Your task to perform on an android device: empty trash in google photos Image 0: 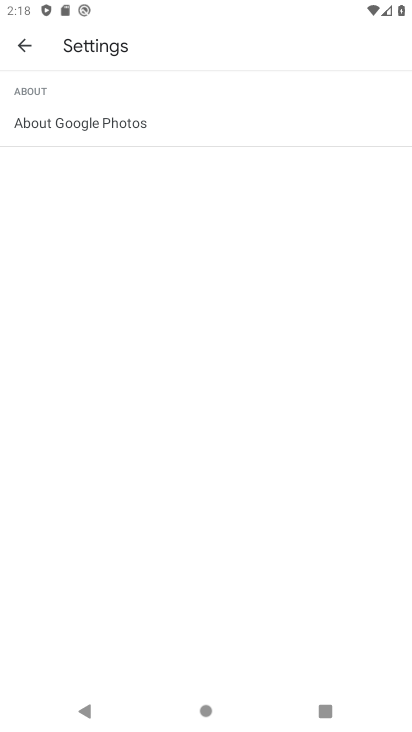
Step 0: press home button
Your task to perform on an android device: empty trash in google photos Image 1: 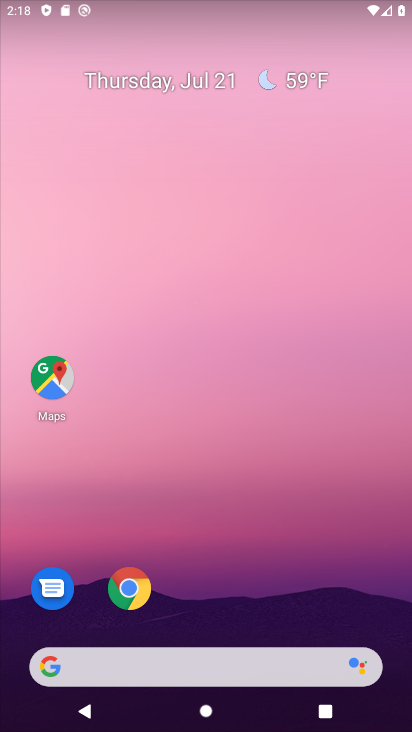
Step 1: drag from (393, 646) to (369, 81)
Your task to perform on an android device: empty trash in google photos Image 2: 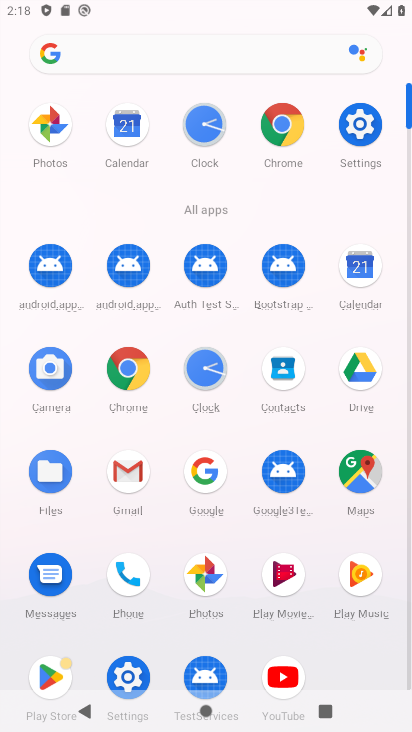
Step 2: click (213, 576)
Your task to perform on an android device: empty trash in google photos Image 3: 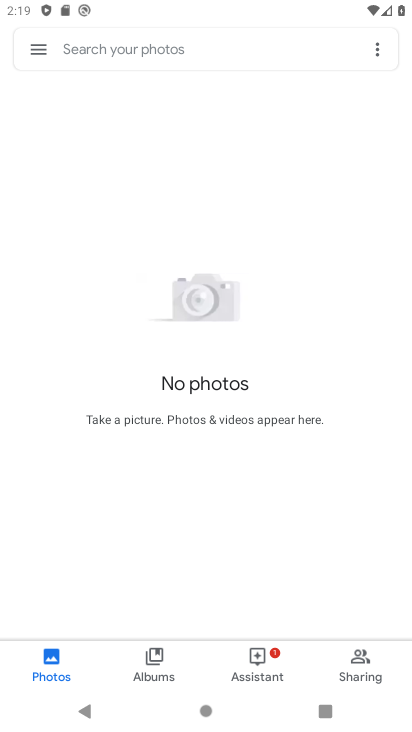
Step 3: click (29, 48)
Your task to perform on an android device: empty trash in google photos Image 4: 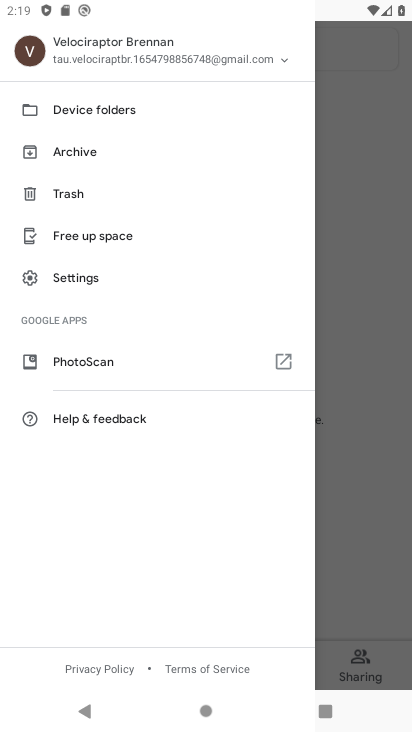
Step 4: click (74, 193)
Your task to perform on an android device: empty trash in google photos Image 5: 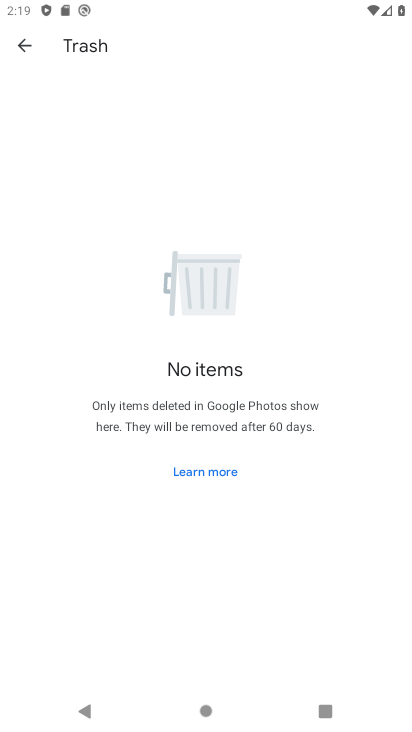
Step 5: task complete